Your task to perform on an android device: Go to internet settings Image 0: 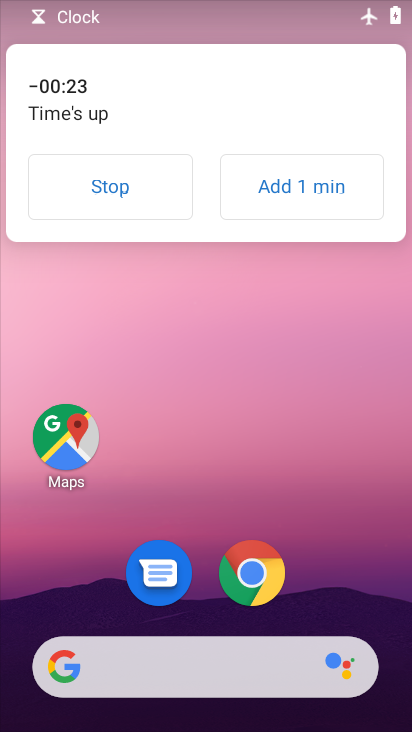
Step 0: press home button
Your task to perform on an android device: Go to internet settings Image 1: 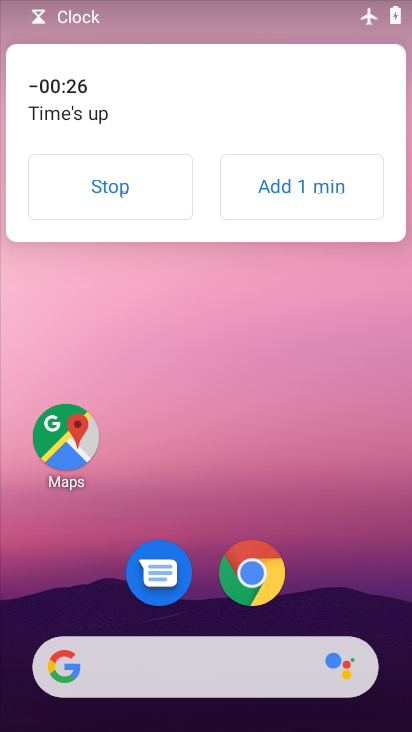
Step 1: click (111, 181)
Your task to perform on an android device: Go to internet settings Image 2: 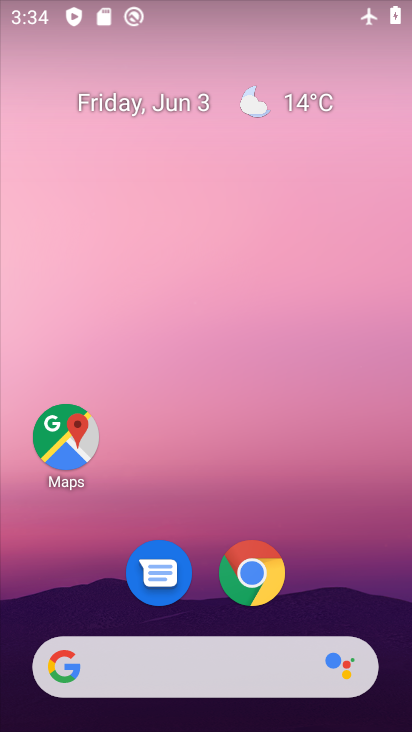
Step 2: drag from (228, 485) to (374, 0)
Your task to perform on an android device: Go to internet settings Image 3: 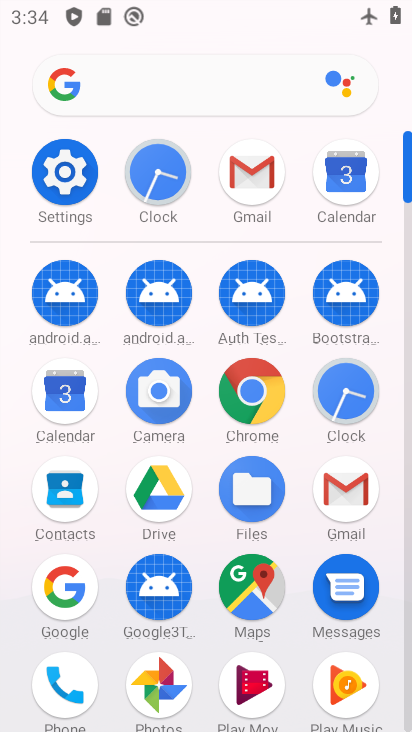
Step 3: click (83, 171)
Your task to perform on an android device: Go to internet settings Image 4: 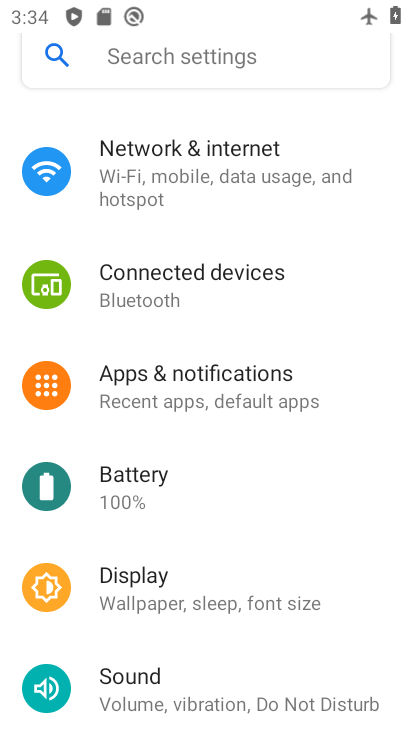
Step 4: click (245, 199)
Your task to perform on an android device: Go to internet settings Image 5: 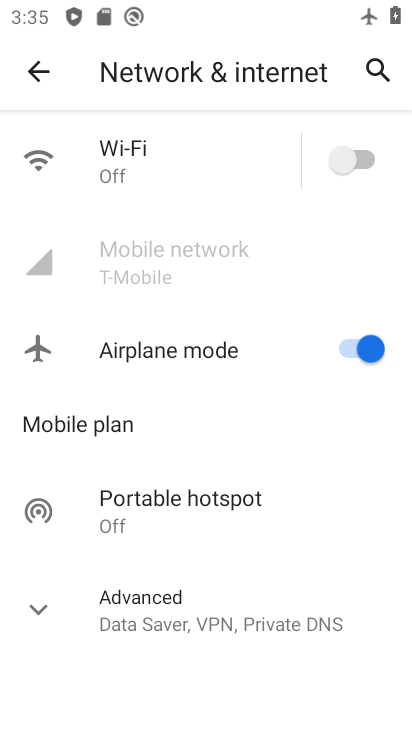
Step 5: task complete